Your task to perform on an android device: check the backup settings in the google photos Image 0: 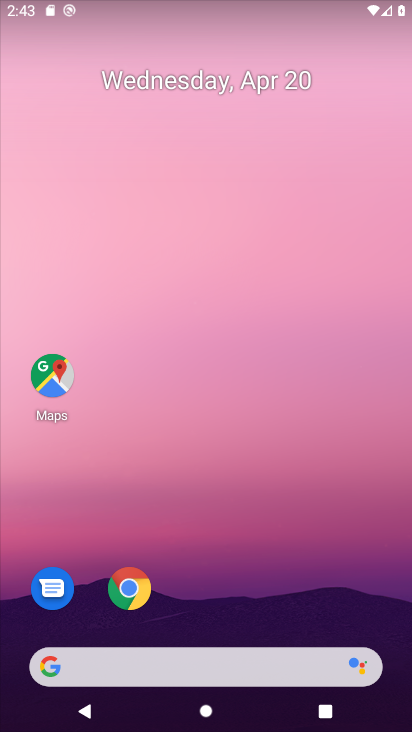
Step 0: drag from (316, 598) to (324, 178)
Your task to perform on an android device: check the backup settings in the google photos Image 1: 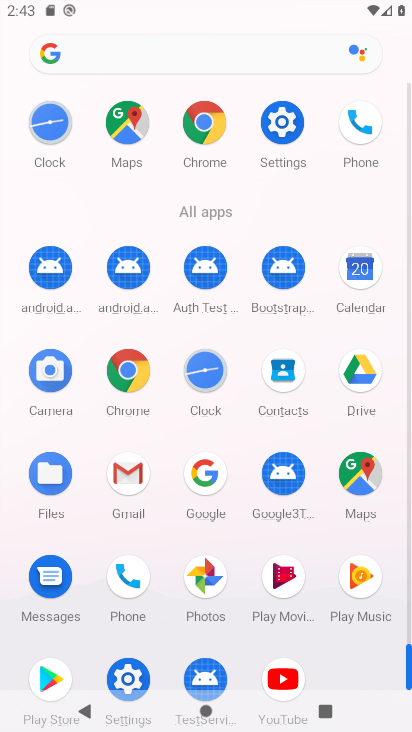
Step 1: click (206, 580)
Your task to perform on an android device: check the backup settings in the google photos Image 2: 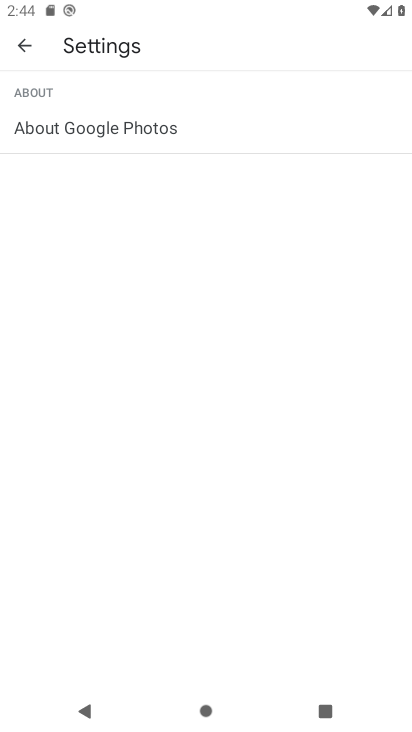
Step 2: press back button
Your task to perform on an android device: check the backup settings in the google photos Image 3: 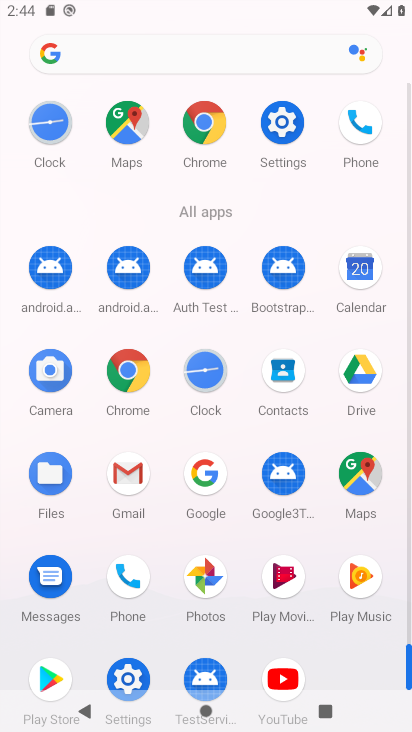
Step 3: click (209, 580)
Your task to perform on an android device: check the backup settings in the google photos Image 4: 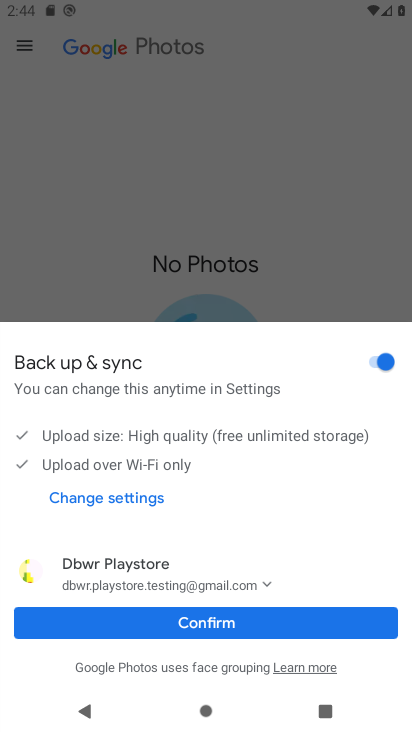
Step 4: click (211, 620)
Your task to perform on an android device: check the backup settings in the google photos Image 5: 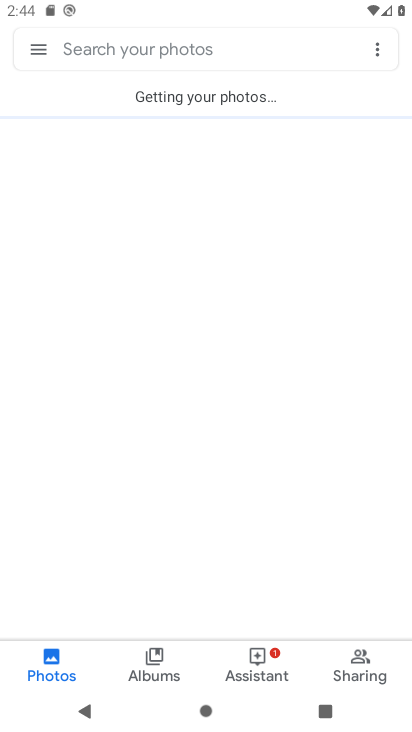
Step 5: click (36, 43)
Your task to perform on an android device: check the backup settings in the google photos Image 6: 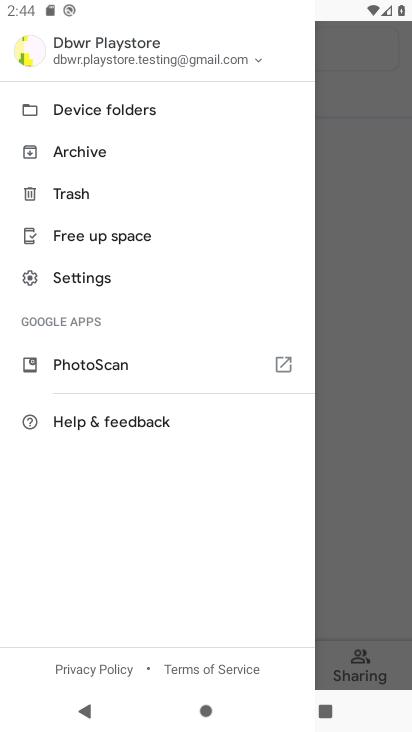
Step 6: click (80, 280)
Your task to perform on an android device: check the backup settings in the google photos Image 7: 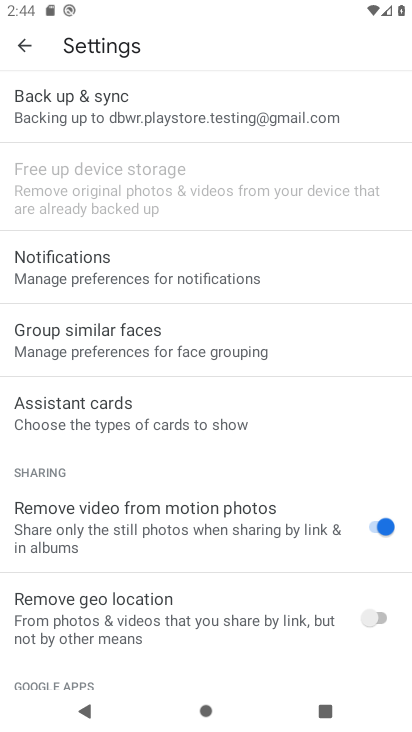
Step 7: click (194, 116)
Your task to perform on an android device: check the backup settings in the google photos Image 8: 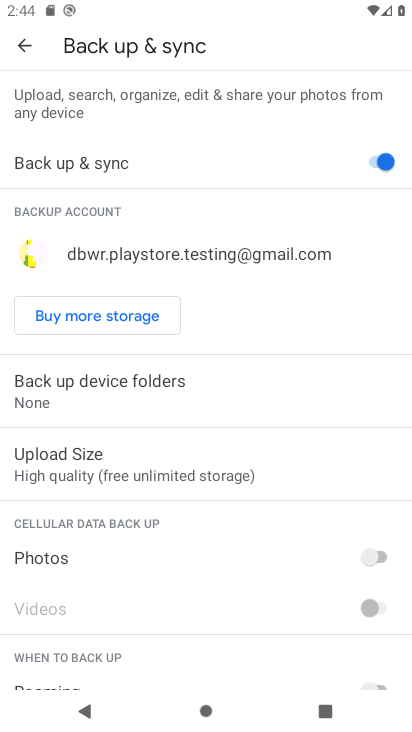
Step 8: task complete